Your task to perform on an android device: Check the weather Image 0: 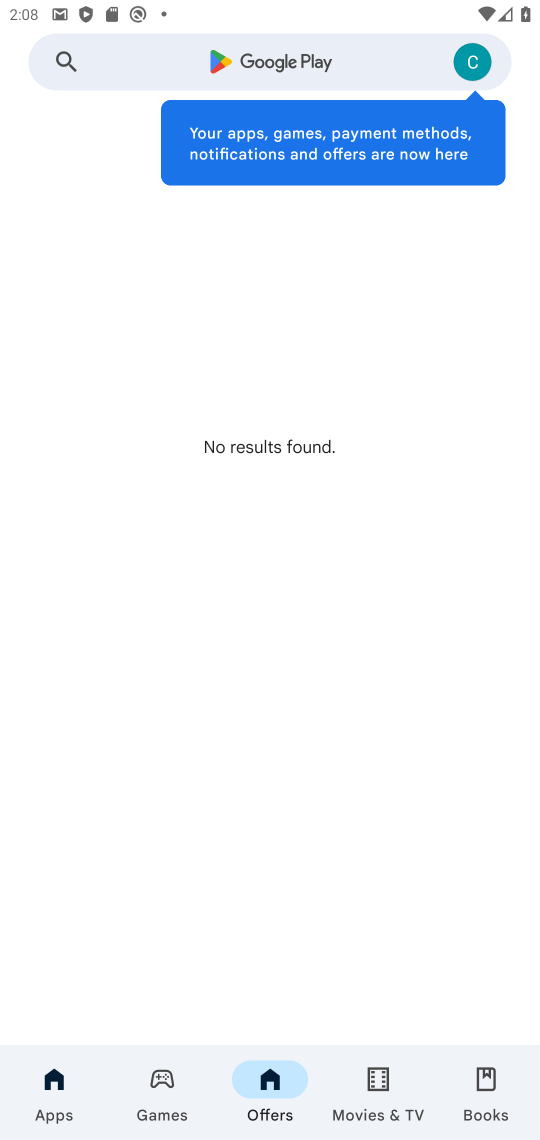
Step 0: press home button
Your task to perform on an android device: Check the weather Image 1: 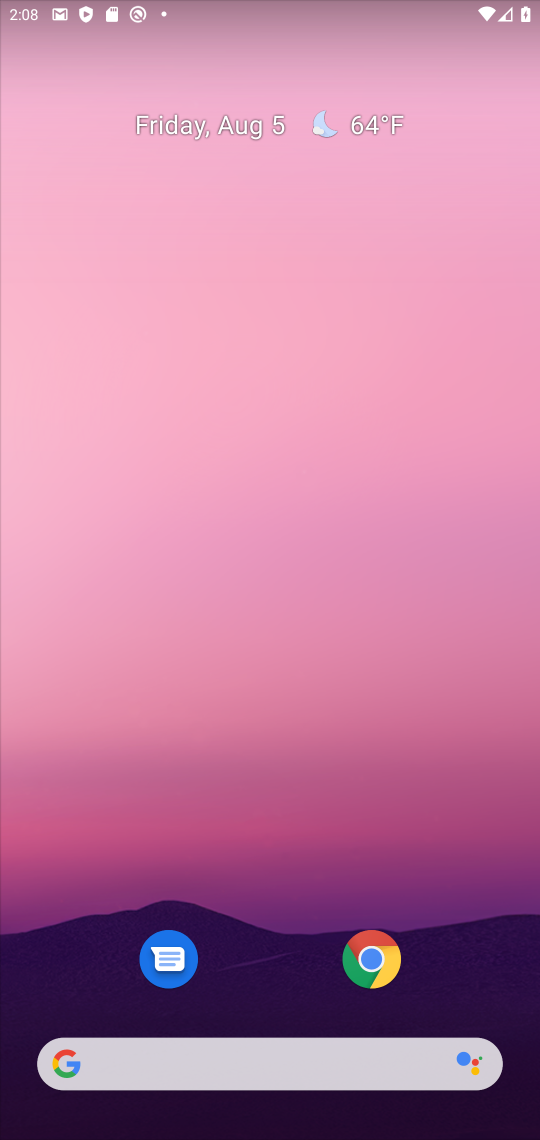
Step 1: click (262, 1064)
Your task to perform on an android device: Check the weather Image 2: 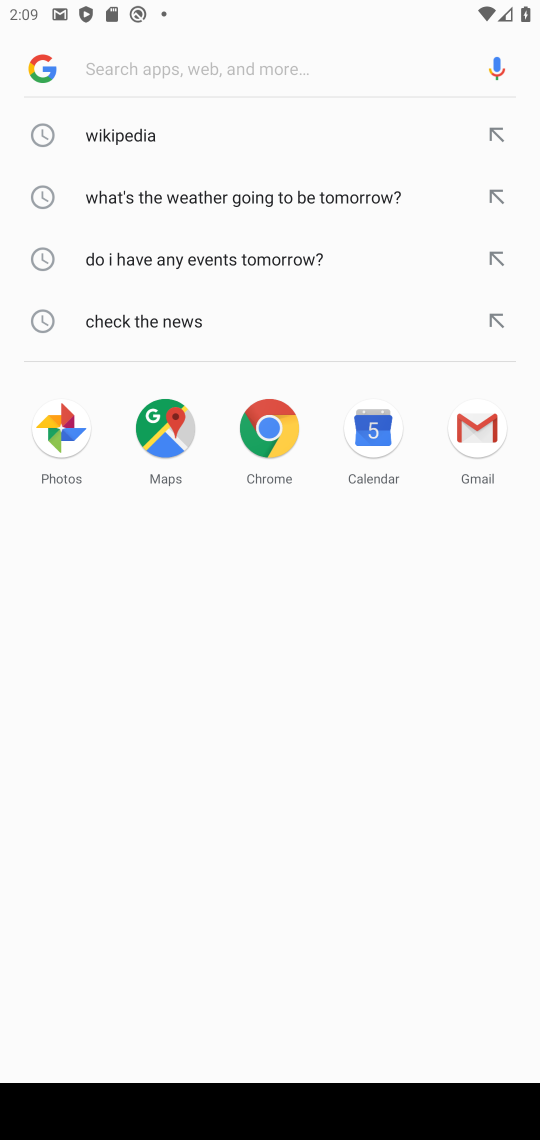
Step 2: type "Check the weather"
Your task to perform on an android device: Check the weather Image 3: 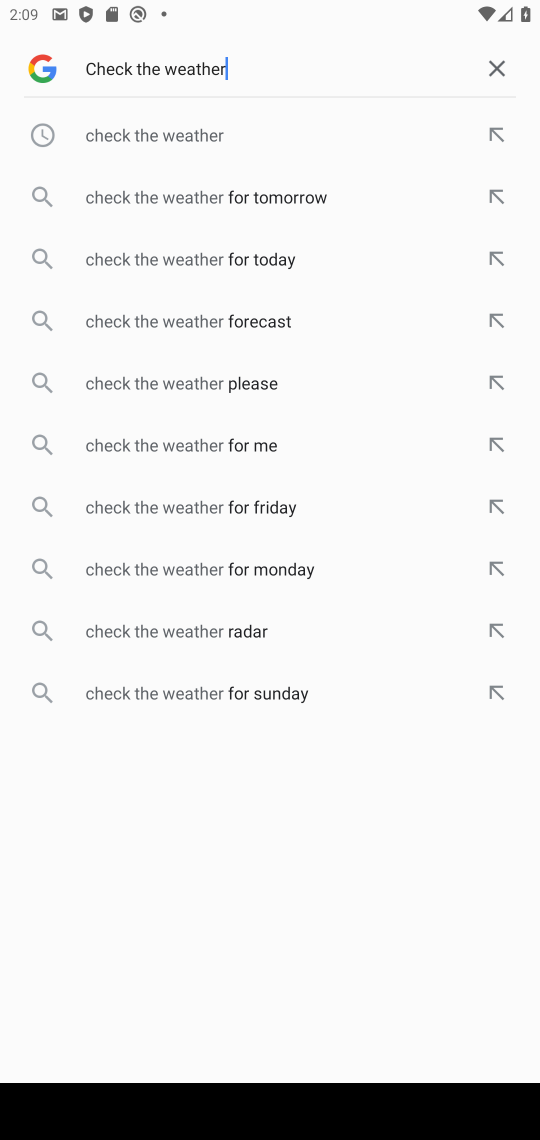
Step 3: type ""
Your task to perform on an android device: Check the weather Image 4: 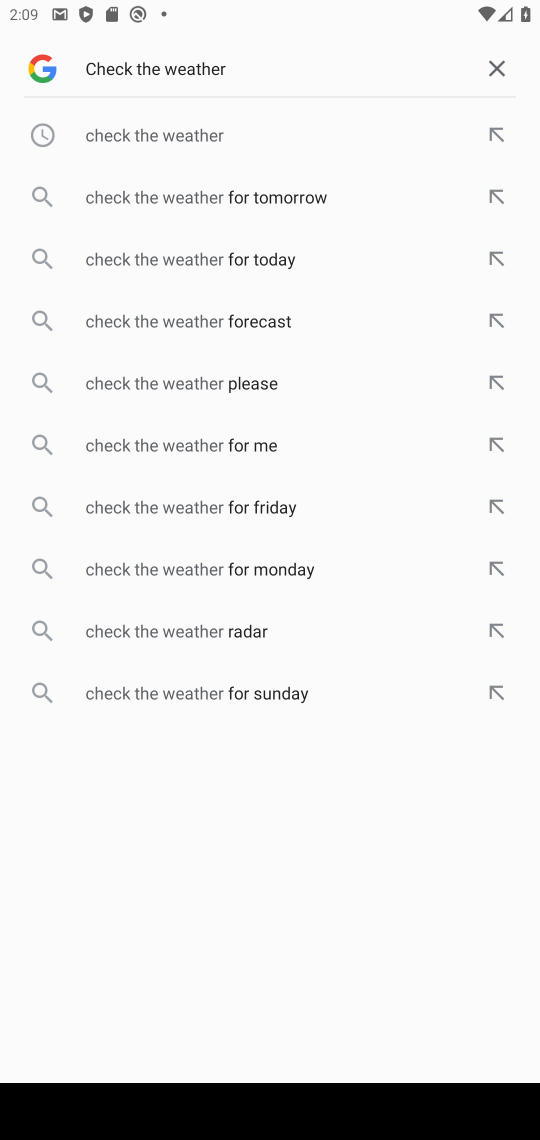
Step 4: click (176, 125)
Your task to perform on an android device: Check the weather Image 5: 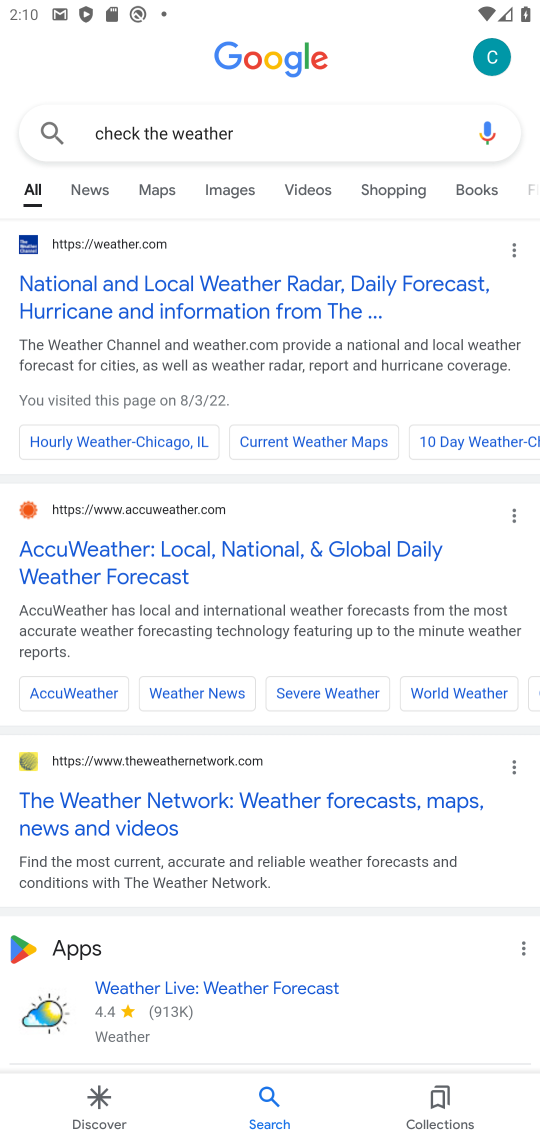
Step 5: task complete